Your task to perform on an android device: all mails in gmail Image 0: 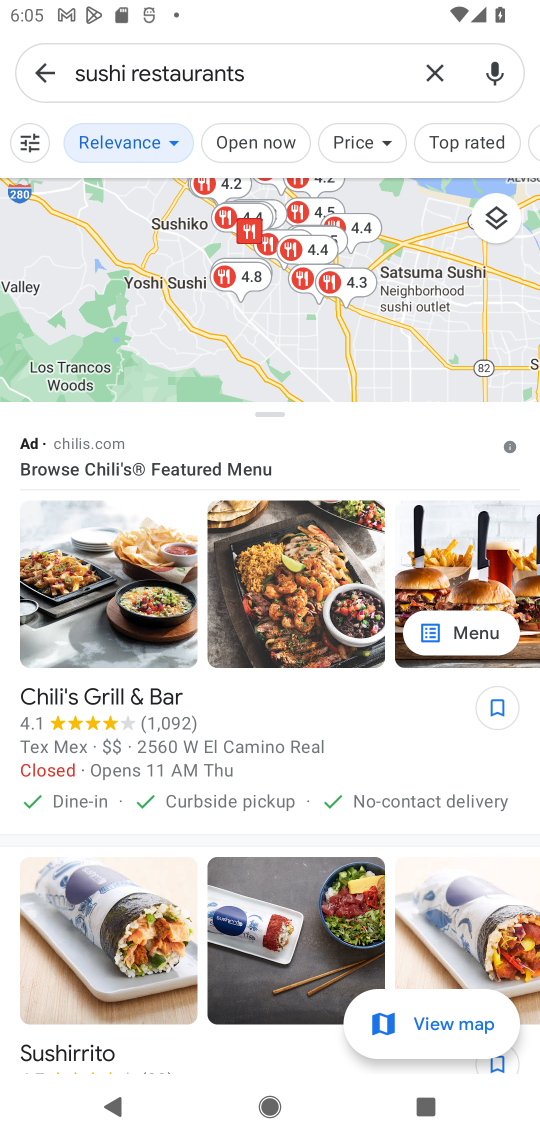
Step 0: task complete